Your task to perform on an android device: empty trash in google photos Image 0: 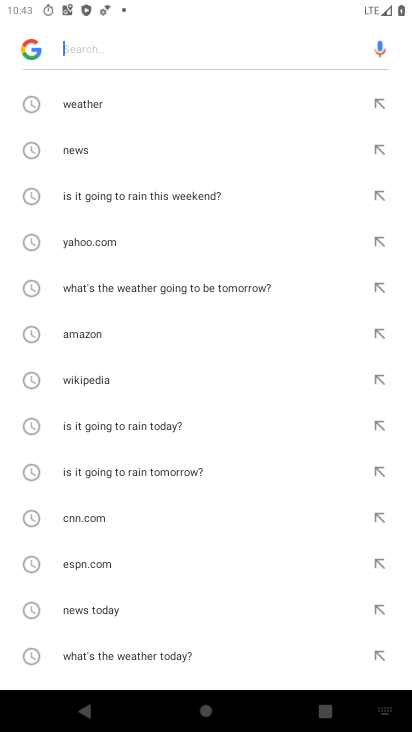
Step 0: press home button
Your task to perform on an android device: empty trash in google photos Image 1: 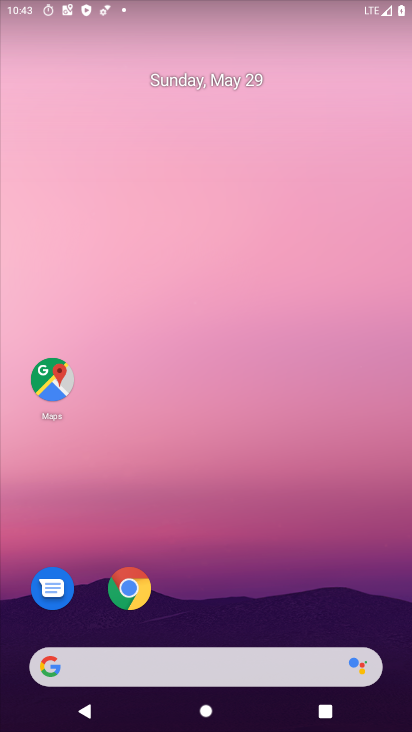
Step 1: drag from (192, 571) to (278, 97)
Your task to perform on an android device: empty trash in google photos Image 2: 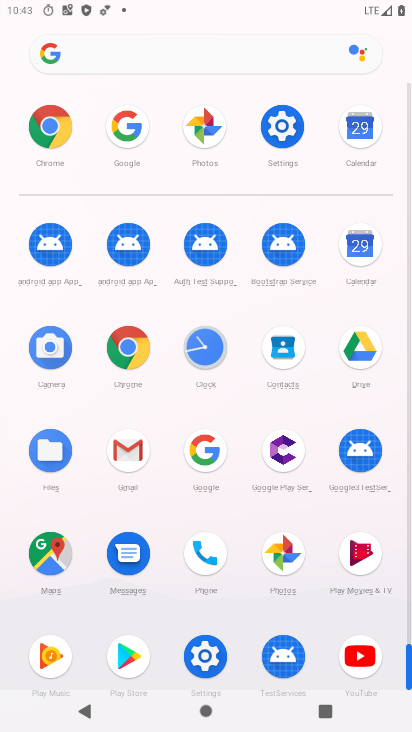
Step 2: click (288, 570)
Your task to perform on an android device: empty trash in google photos Image 3: 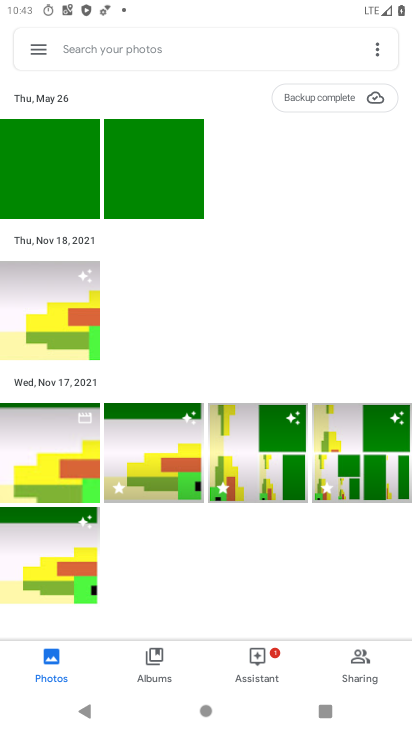
Step 3: click (33, 55)
Your task to perform on an android device: empty trash in google photos Image 4: 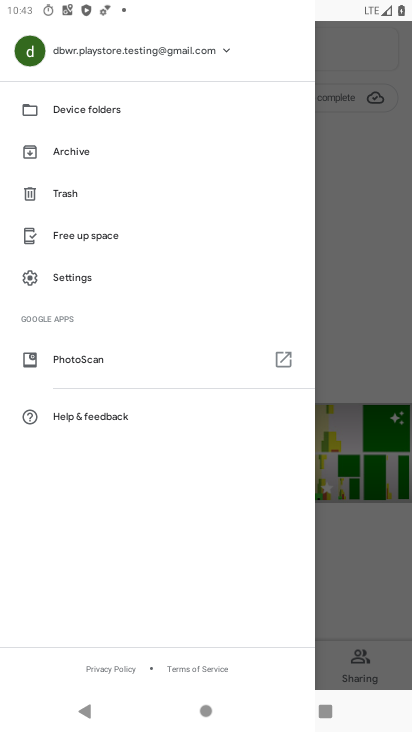
Step 4: click (100, 205)
Your task to perform on an android device: empty trash in google photos Image 5: 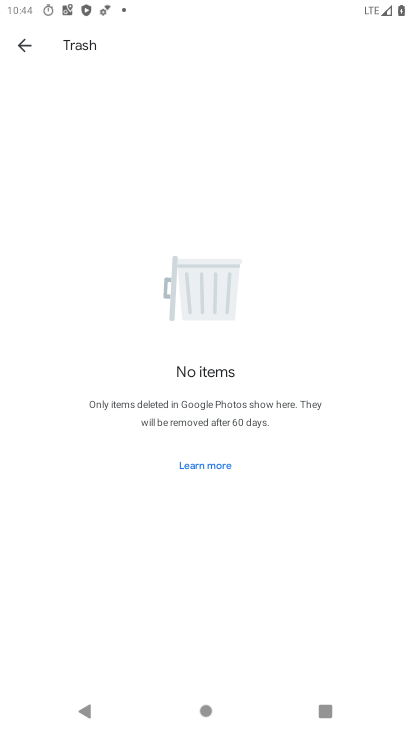
Step 5: task complete